Your task to perform on an android device: open app "Lyft - Rideshare, Bikes, Scooters & Transit" (install if not already installed), go to login, and select forgot password Image 0: 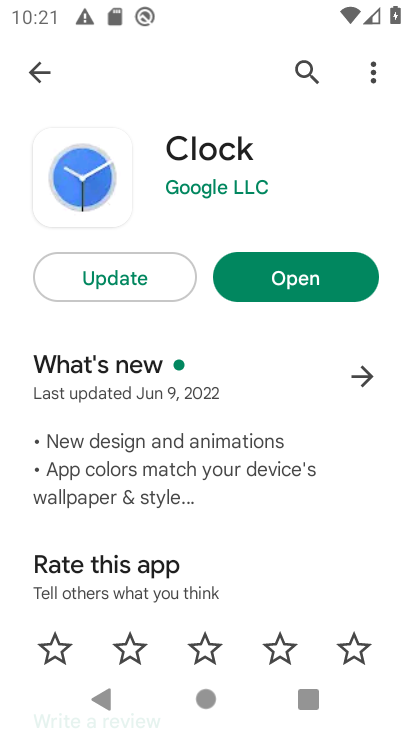
Step 0: press home button
Your task to perform on an android device: open app "Lyft - Rideshare, Bikes, Scooters & Transit" (install if not already installed), go to login, and select forgot password Image 1: 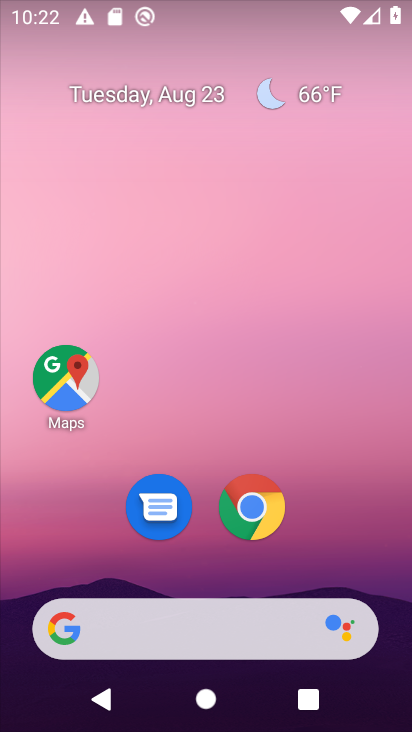
Step 1: drag from (395, 689) to (330, 249)
Your task to perform on an android device: open app "Lyft - Rideshare, Bikes, Scooters & Transit" (install if not already installed), go to login, and select forgot password Image 2: 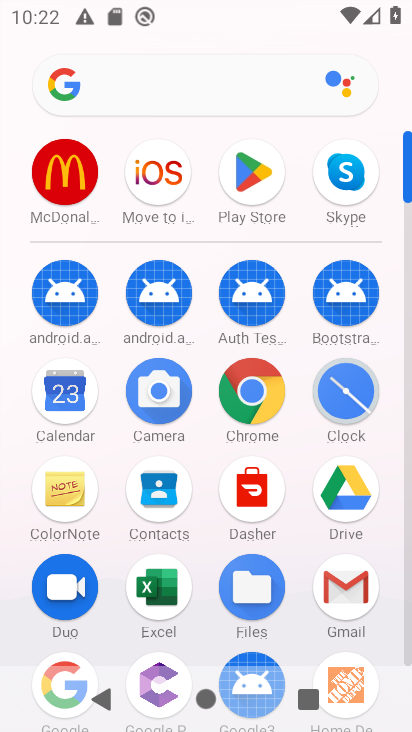
Step 2: click (404, 651)
Your task to perform on an android device: open app "Lyft - Rideshare, Bikes, Scooters & Transit" (install if not already installed), go to login, and select forgot password Image 3: 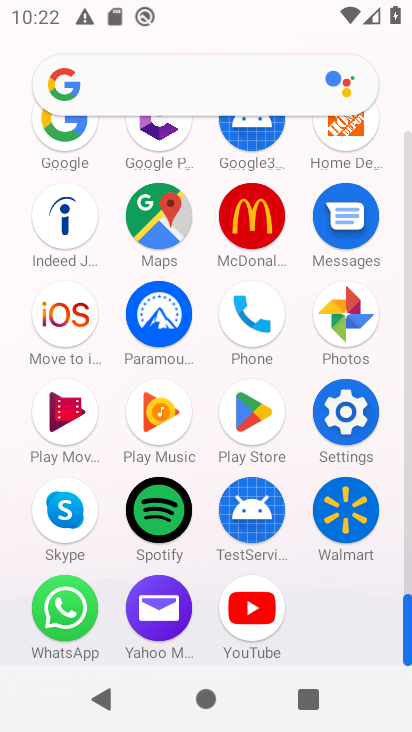
Step 3: click (252, 410)
Your task to perform on an android device: open app "Lyft - Rideshare, Bikes, Scooters & Transit" (install if not already installed), go to login, and select forgot password Image 4: 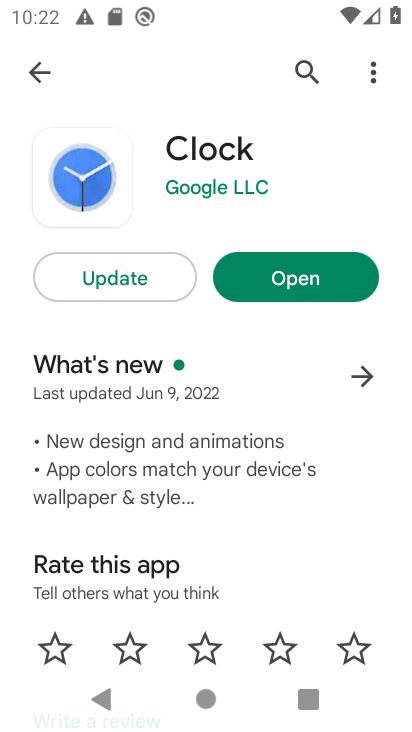
Step 4: click (305, 64)
Your task to perform on an android device: open app "Lyft - Rideshare, Bikes, Scooters & Transit" (install if not already installed), go to login, and select forgot password Image 5: 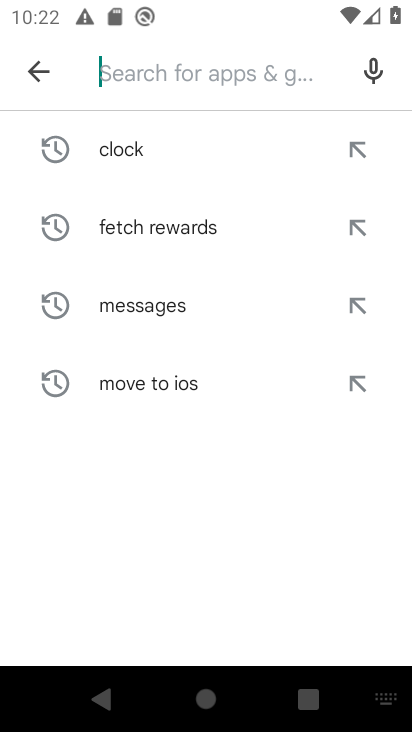
Step 5: type "Lyft - Rideshare, Bikes, Scooters & Transit"
Your task to perform on an android device: open app "Lyft - Rideshare, Bikes, Scooters & Transit" (install if not already installed), go to login, and select forgot password Image 6: 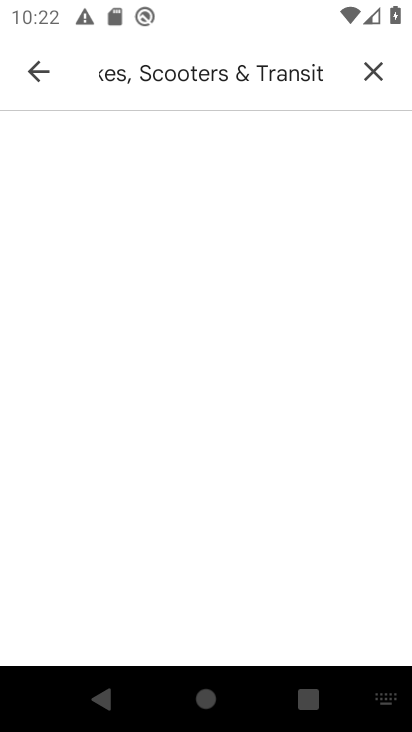
Step 6: task complete